Your task to perform on an android device: turn off notifications settings in the gmail app Image 0: 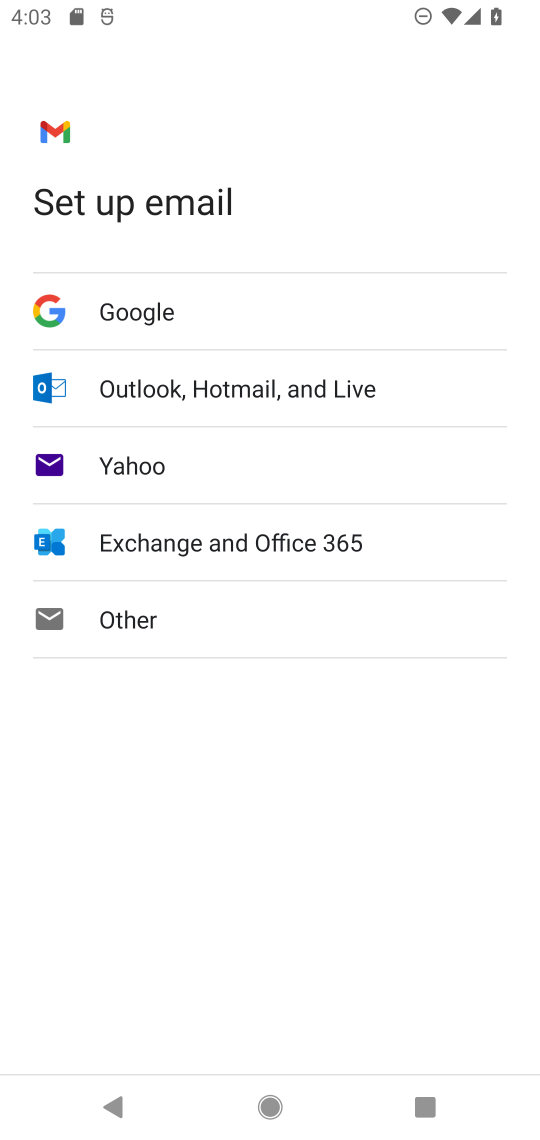
Step 0: press home button
Your task to perform on an android device: turn off notifications settings in the gmail app Image 1: 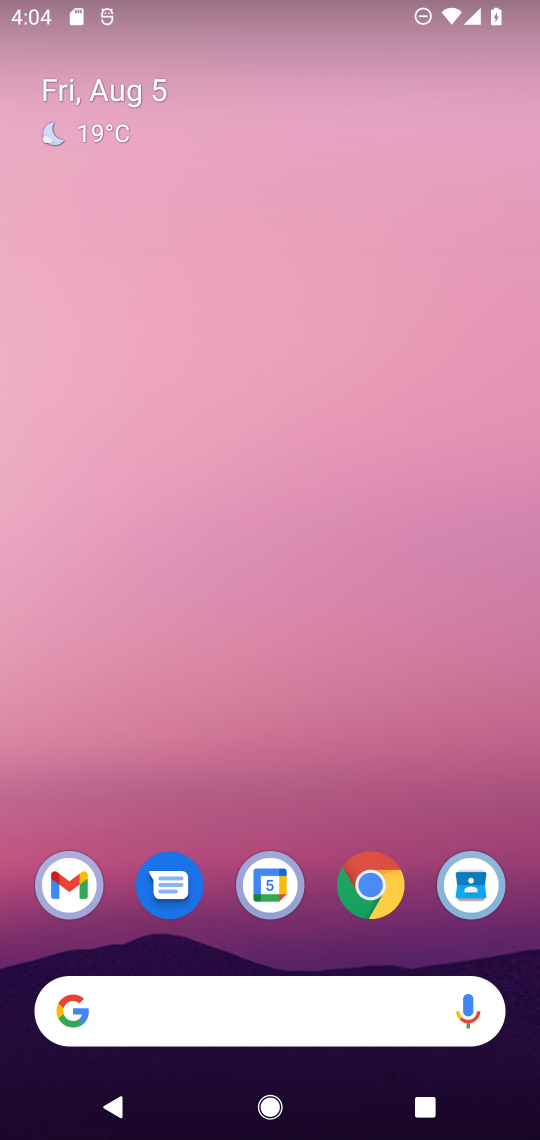
Step 1: drag from (315, 953) to (315, 119)
Your task to perform on an android device: turn off notifications settings in the gmail app Image 2: 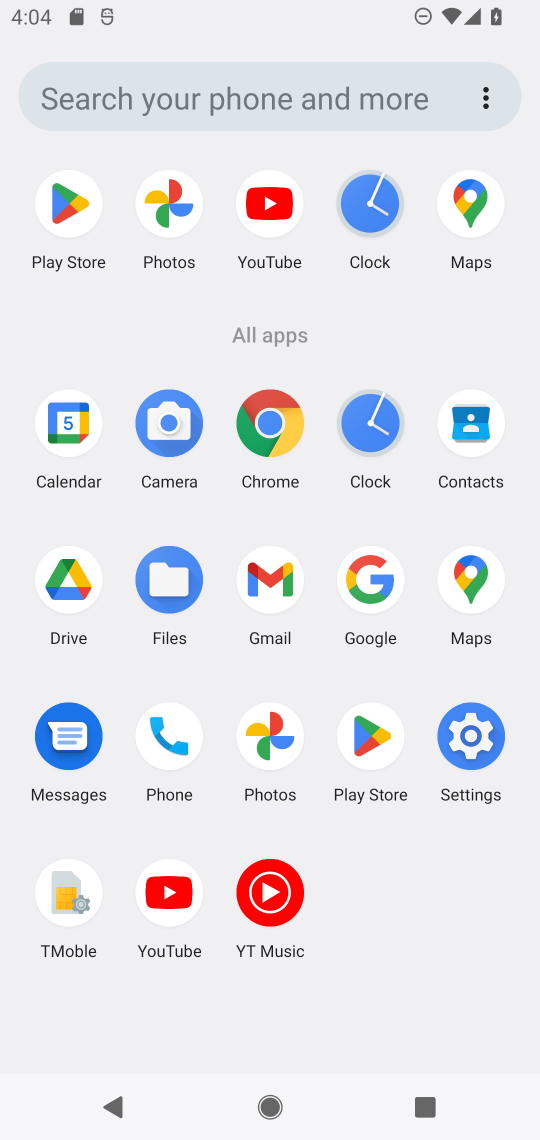
Step 2: click (255, 577)
Your task to perform on an android device: turn off notifications settings in the gmail app Image 3: 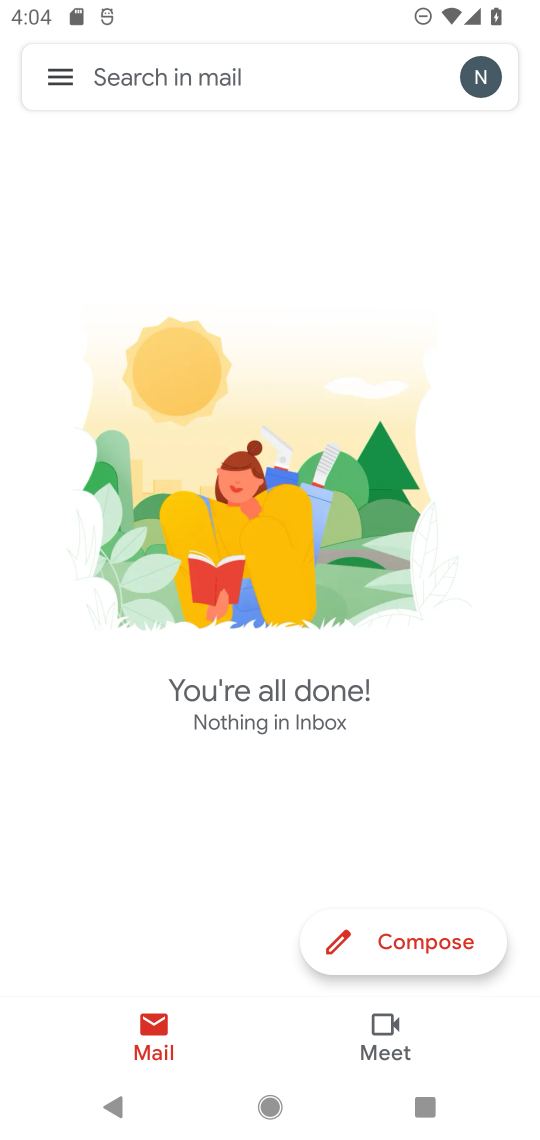
Step 3: click (68, 74)
Your task to perform on an android device: turn off notifications settings in the gmail app Image 4: 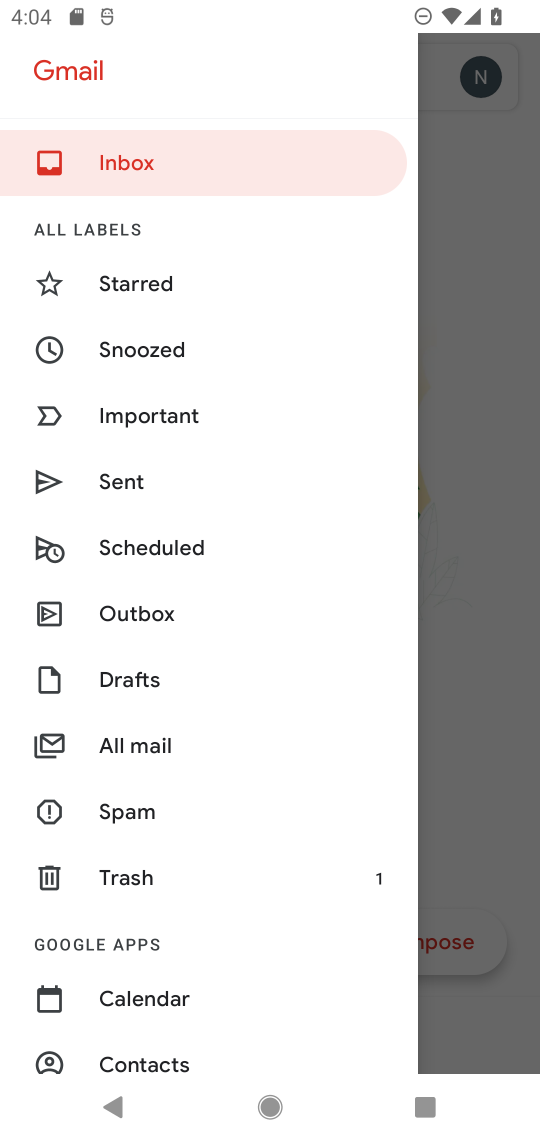
Step 4: drag from (148, 992) to (136, 704)
Your task to perform on an android device: turn off notifications settings in the gmail app Image 5: 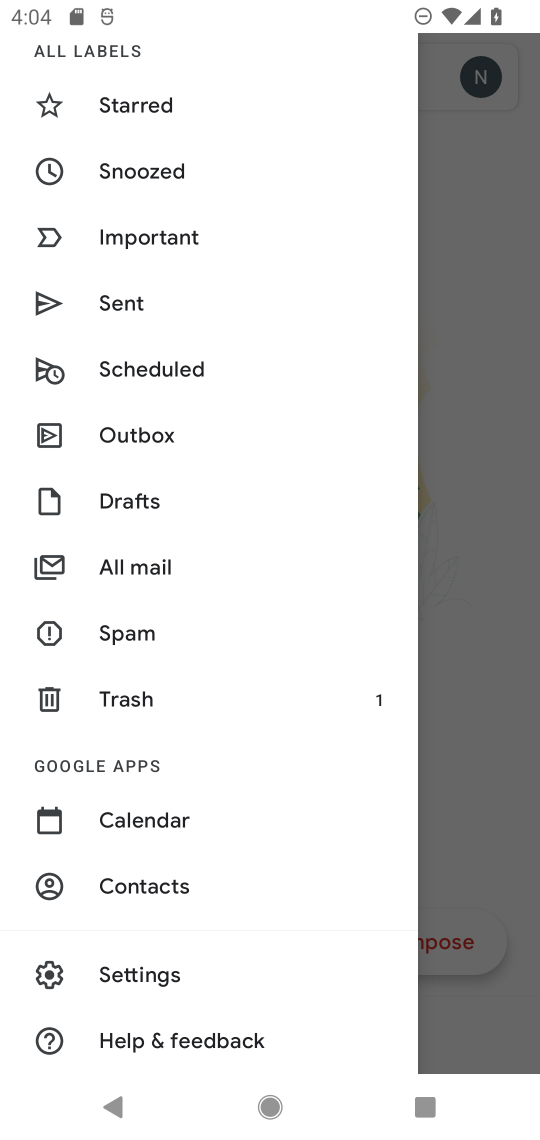
Step 5: click (134, 973)
Your task to perform on an android device: turn off notifications settings in the gmail app Image 6: 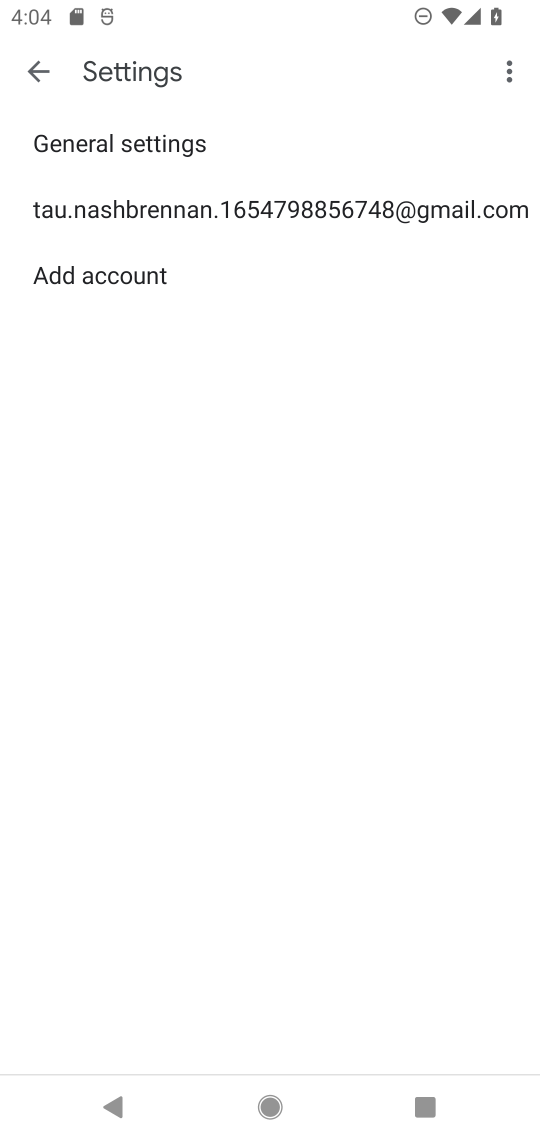
Step 6: click (244, 210)
Your task to perform on an android device: turn off notifications settings in the gmail app Image 7: 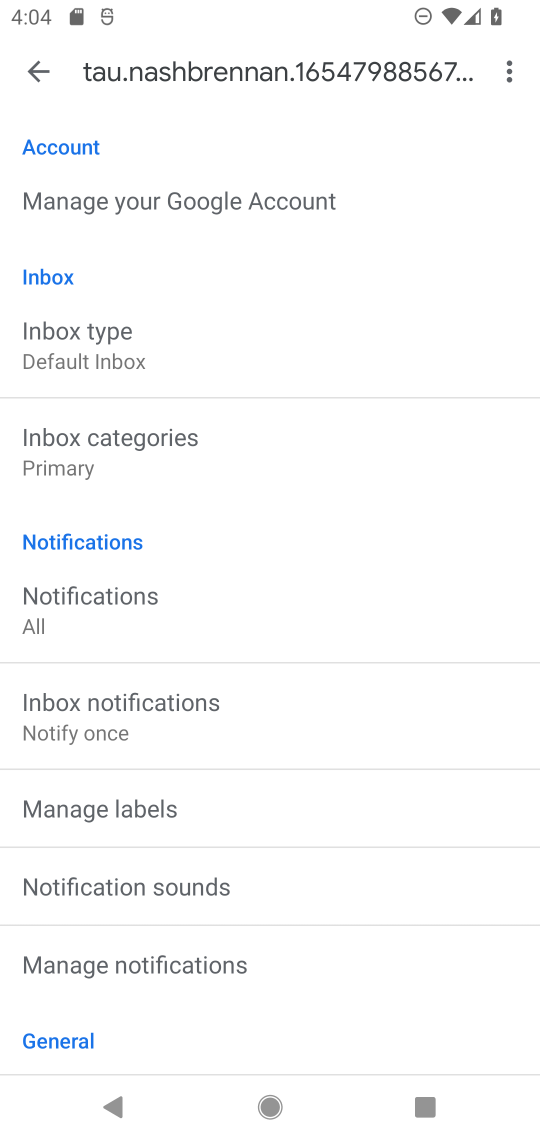
Step 7: click (136, 605)
Your task to perform on an android device: turn off notifications settings in the gmail app Image 8: 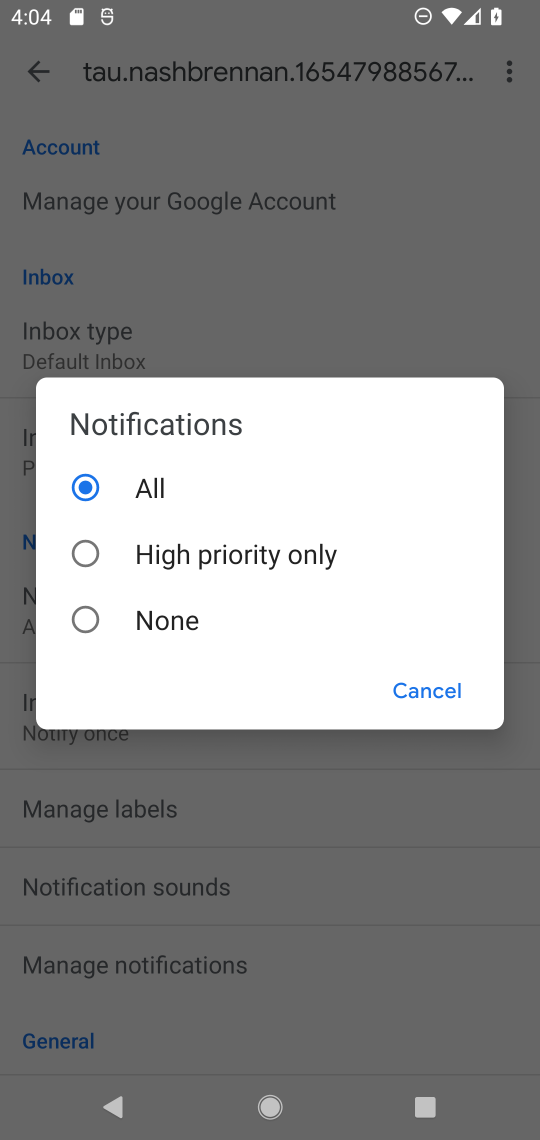
Step 8: click (77, 621)
Your task to perform on an android device: turn off notifications settings in the gmail app Image 9: 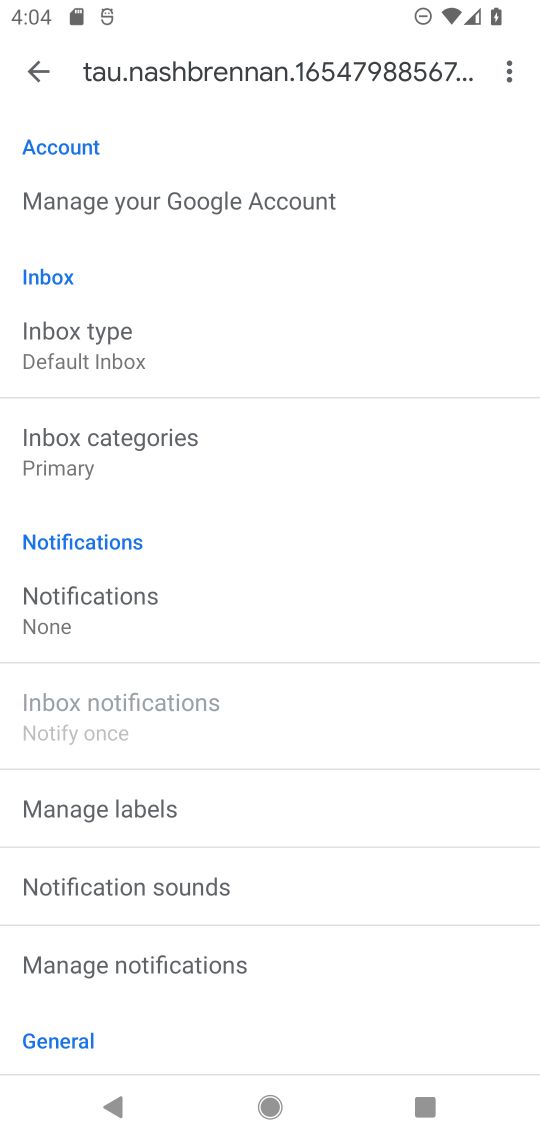
Step 9: task complete